Your task to perform on an android device: turn on airplane mode Image 0: 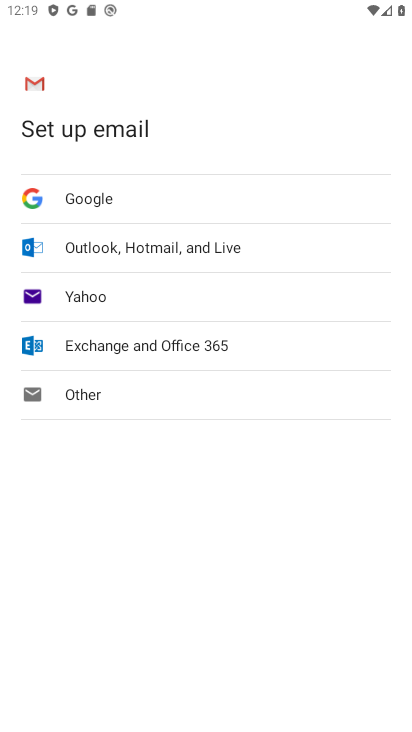
Step 0: drag from (370, 6) to (301, 550)
Your task to perform on an android device: turn on airplane mode Image 1: 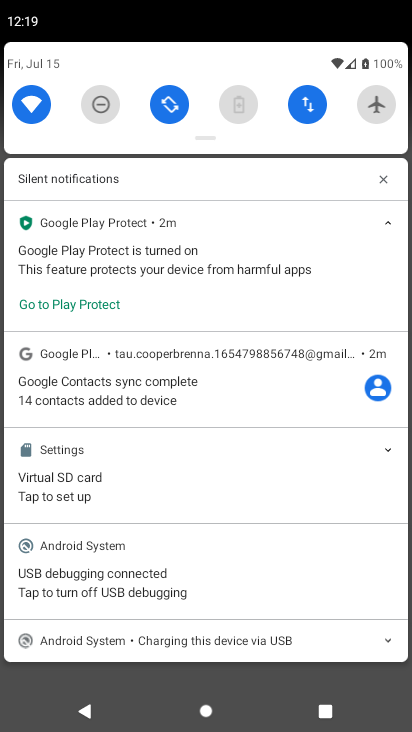
Step 1: click (375, 101)
Your task to perform on an android device: turn on airplane mode Image 2: 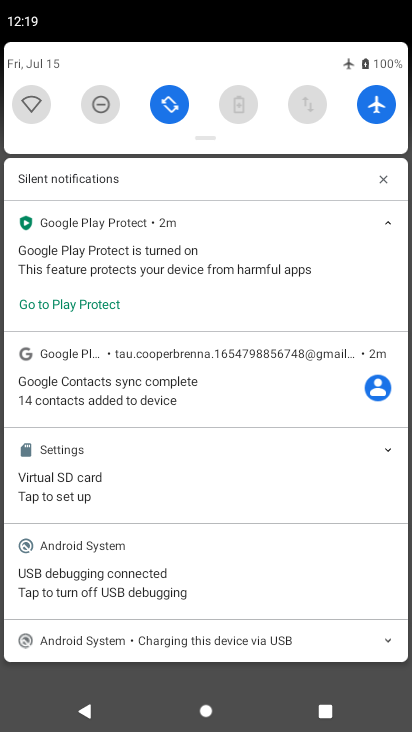
Step 2: task complete